Your task to perform on an android device: toggle sleep mode Image 0: 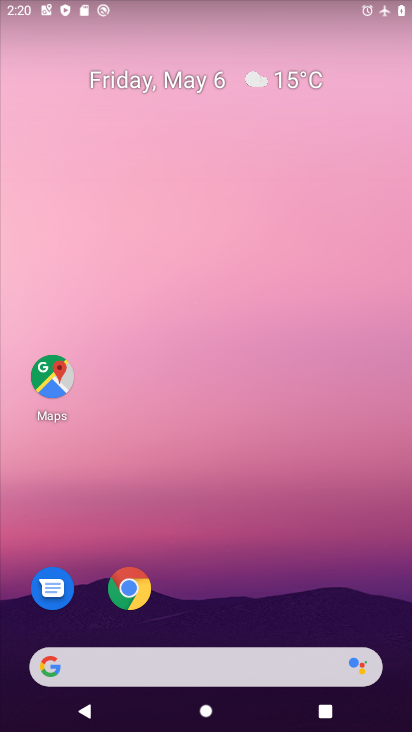
Step 0: drag from (177, 633) to (241, 292)
Your task to perform on an android device: toggle sleep mode Image 1: 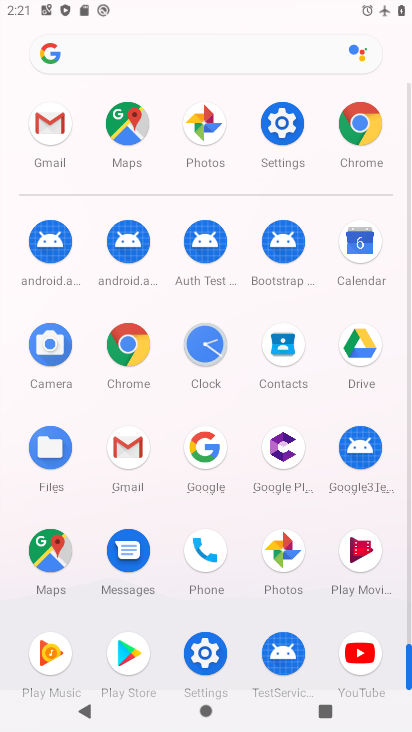
Step 1: click (212, 635)
Your task to perform on an android device: toggle sleep mode Image 2: 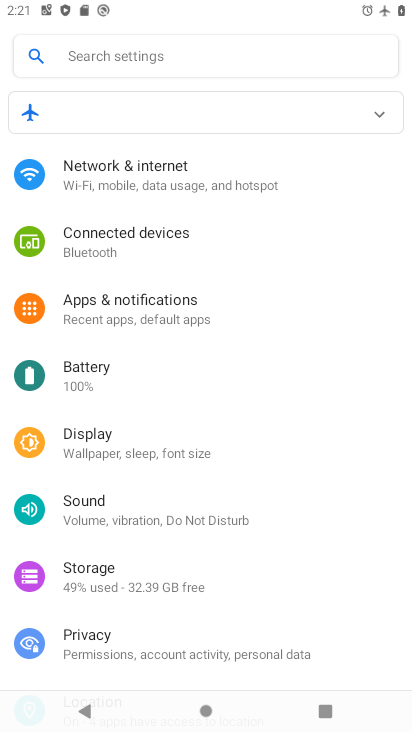
Step 2: click (78, 443)
Your task to perform on an android device: toggle sleep mode Image 3: 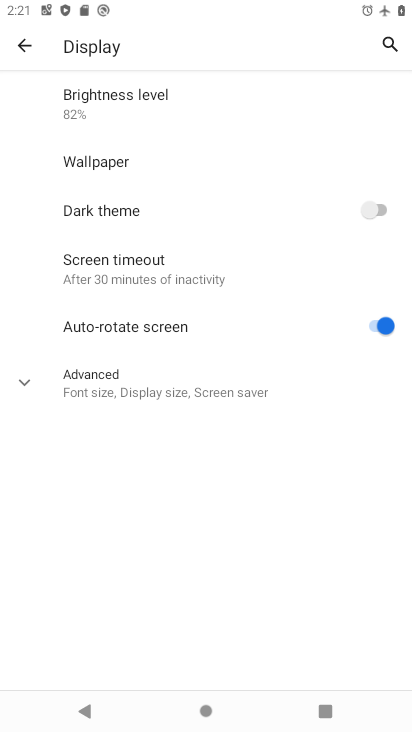
Step 3: click (129, 399)
Your task to perform on an android device: toggle sleep mode Image 4: 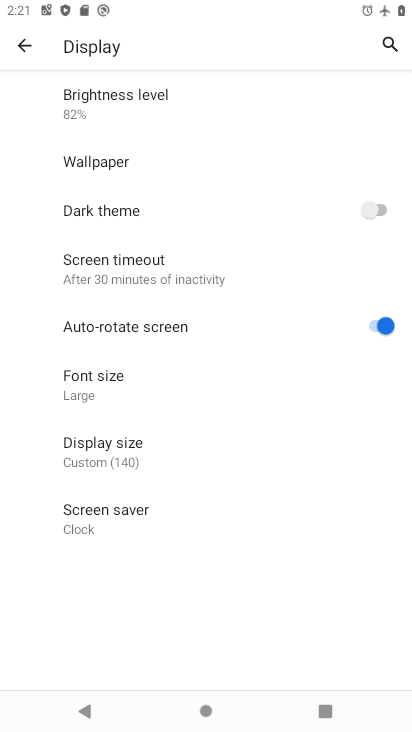
Step 4: click (193, 276)
Your task to perform on an android device: toggle sleep mode Image 5: 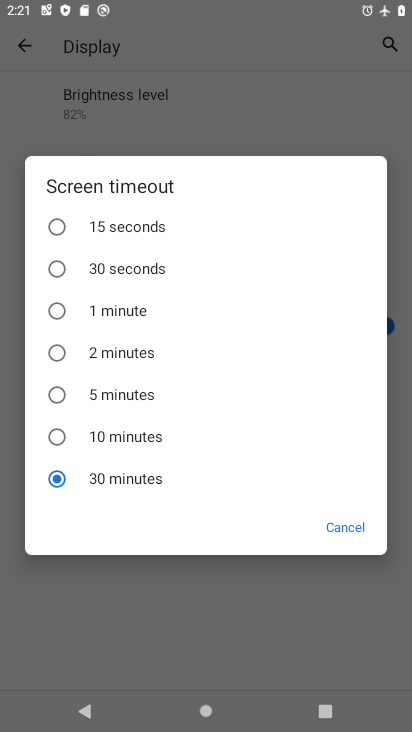
Step 5: task complete